Your task to perform on an android device: Open Google Chrome Image 0: 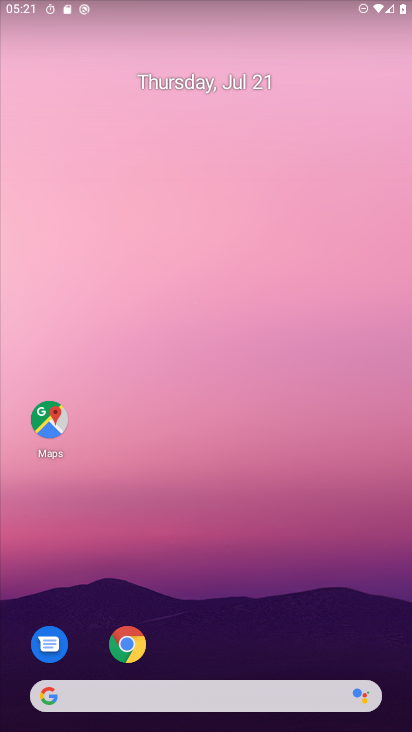
Step 0: click (124, 641)
Your task to perform on an android device: Open Google Chrome Image 1: 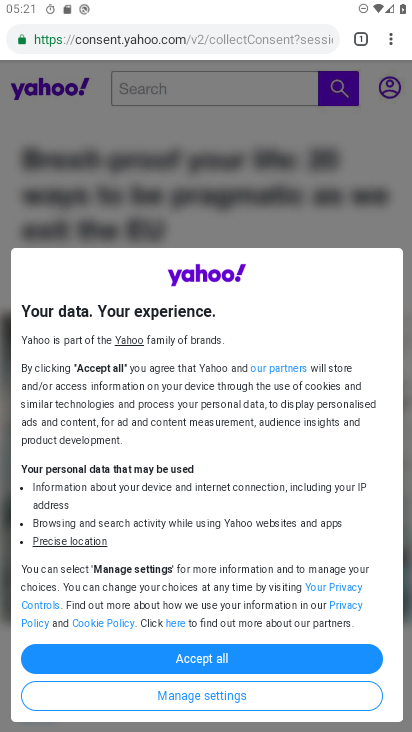
Step 1: task complete